Your task to perform on an android device: open app "McDonald's" (install if not already installed) and enter user name: "copes@yahoo.com" and password: "Rhenish" Image 0: 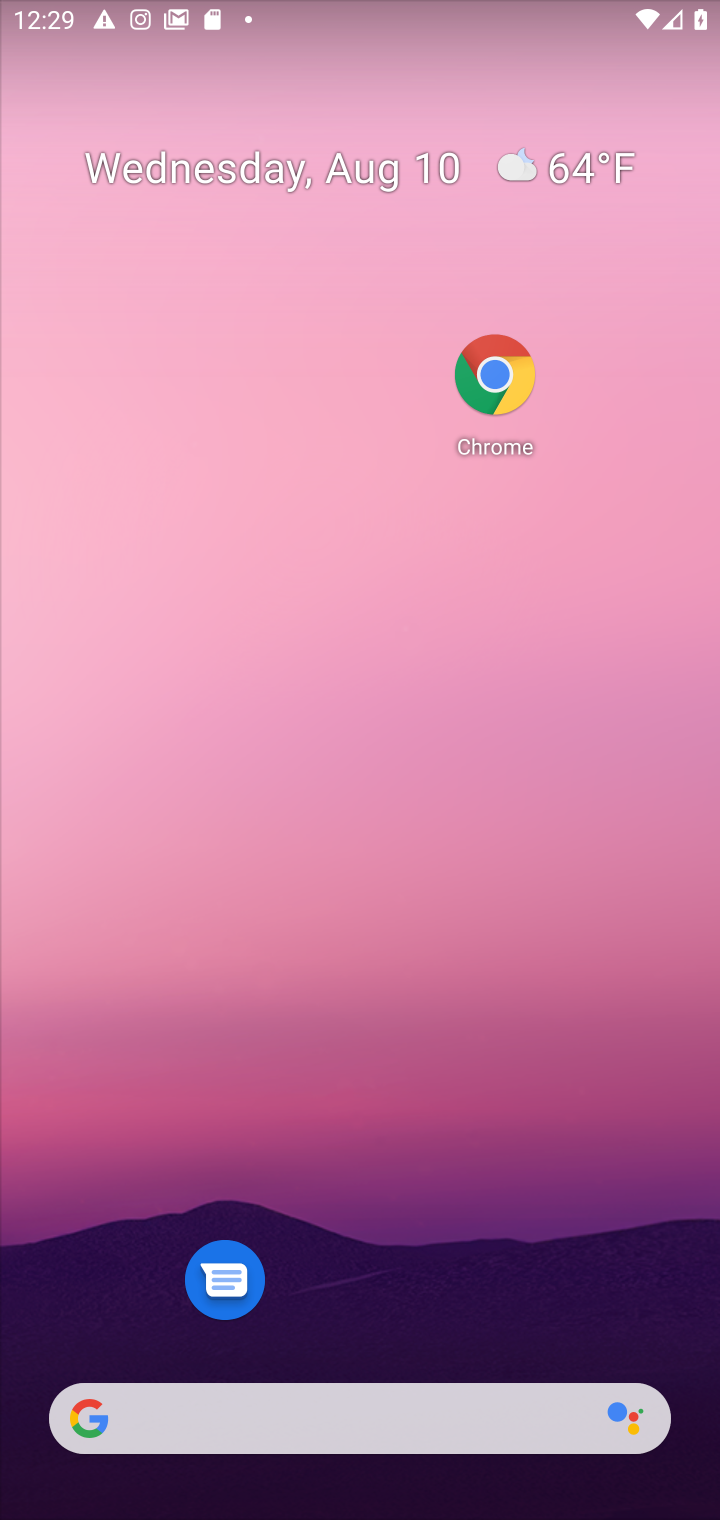
Step 0: drag from (382, 1309) to (216, 180)
Your task to perform on an android device: open app "McDonald's" (install if not already installed) and enter user name: "copes@yahoo.com" and password: "Rhenish" Image 1: 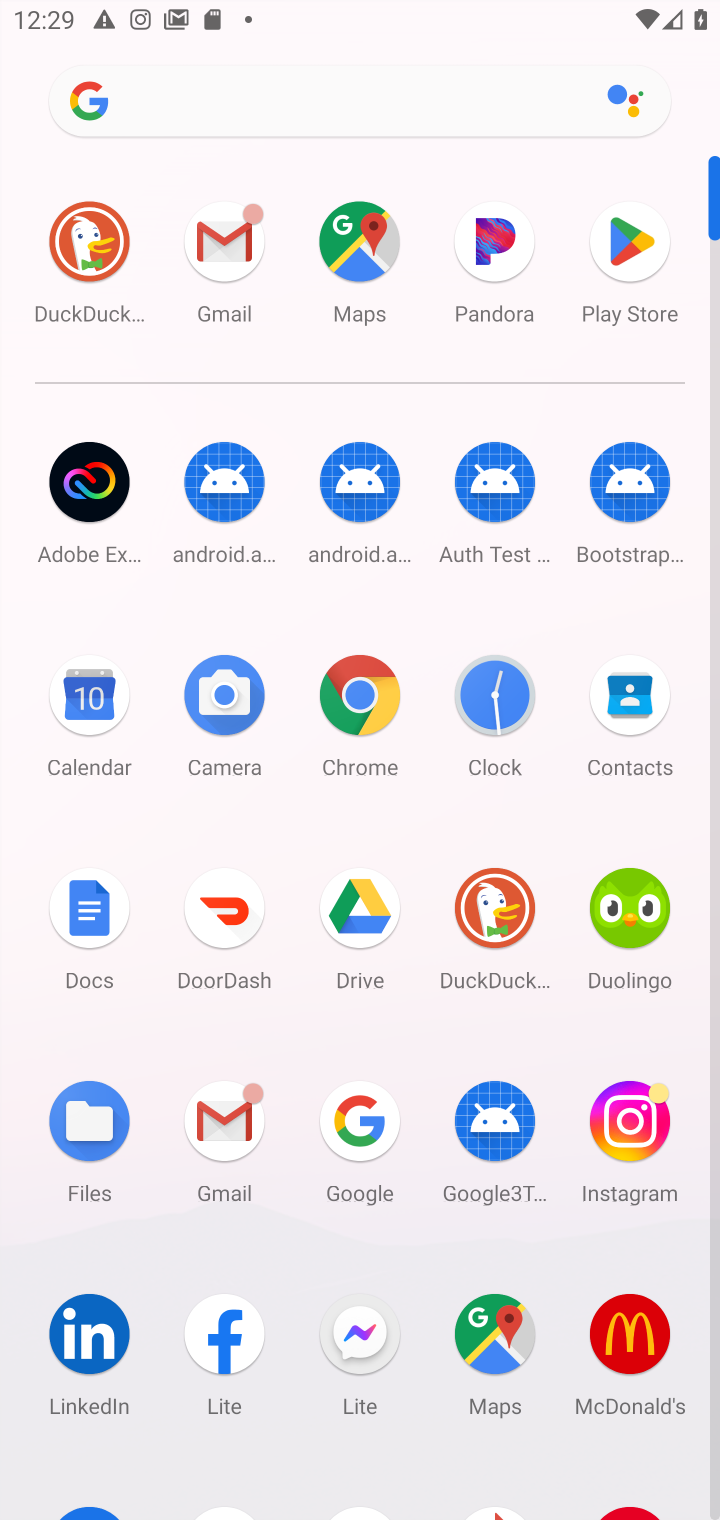
Step 1: click (603, 1327)
Your task to perform on an android device: open app "McDonald's" (install if not already installed) and enter user name: "copes@yahoo.com" and password: "Rhenish" Image 2: 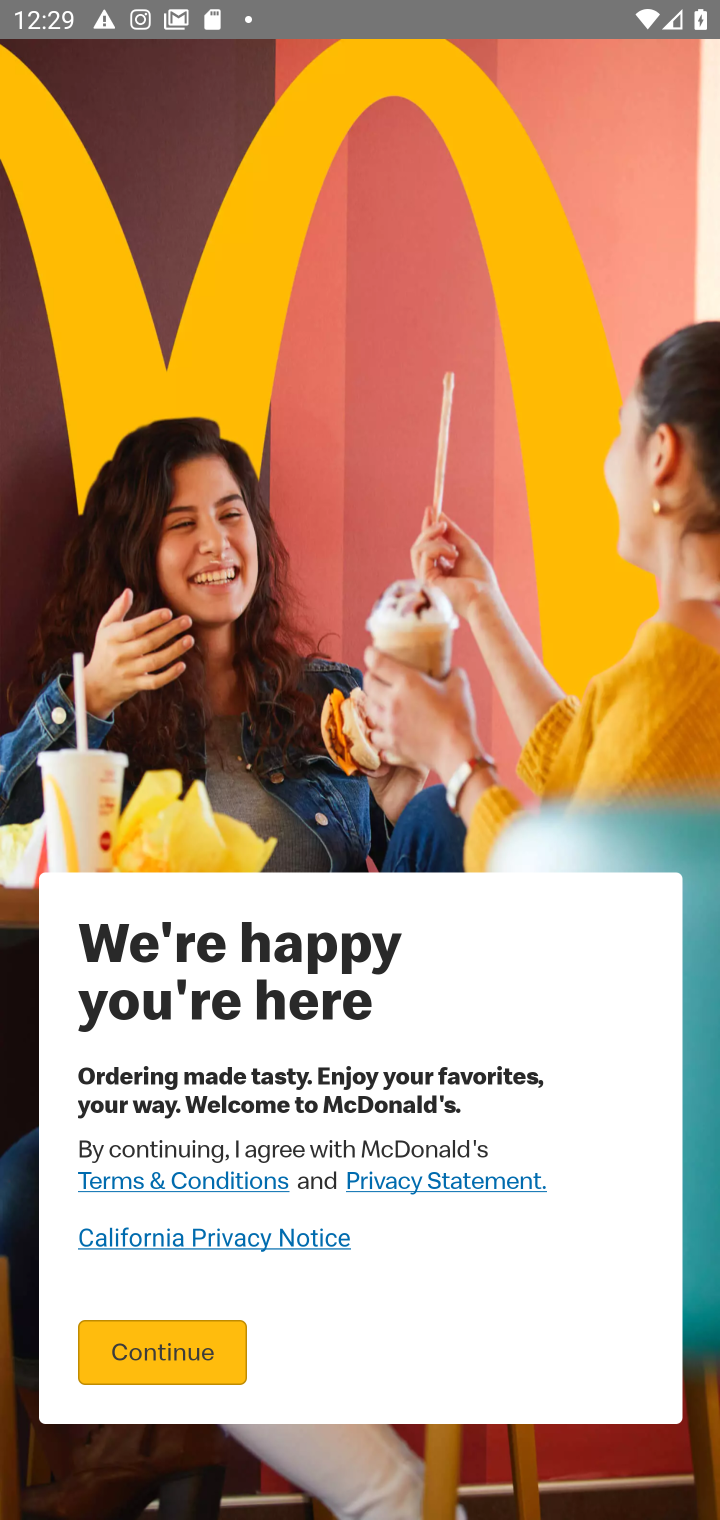
Step 2: click (201, 1364)
Your task to perform on an android device: open app "McDonald's" (install if not already installed) and enter user name: "copes@yahoo.com" and password: "Rhenish" Image 3: 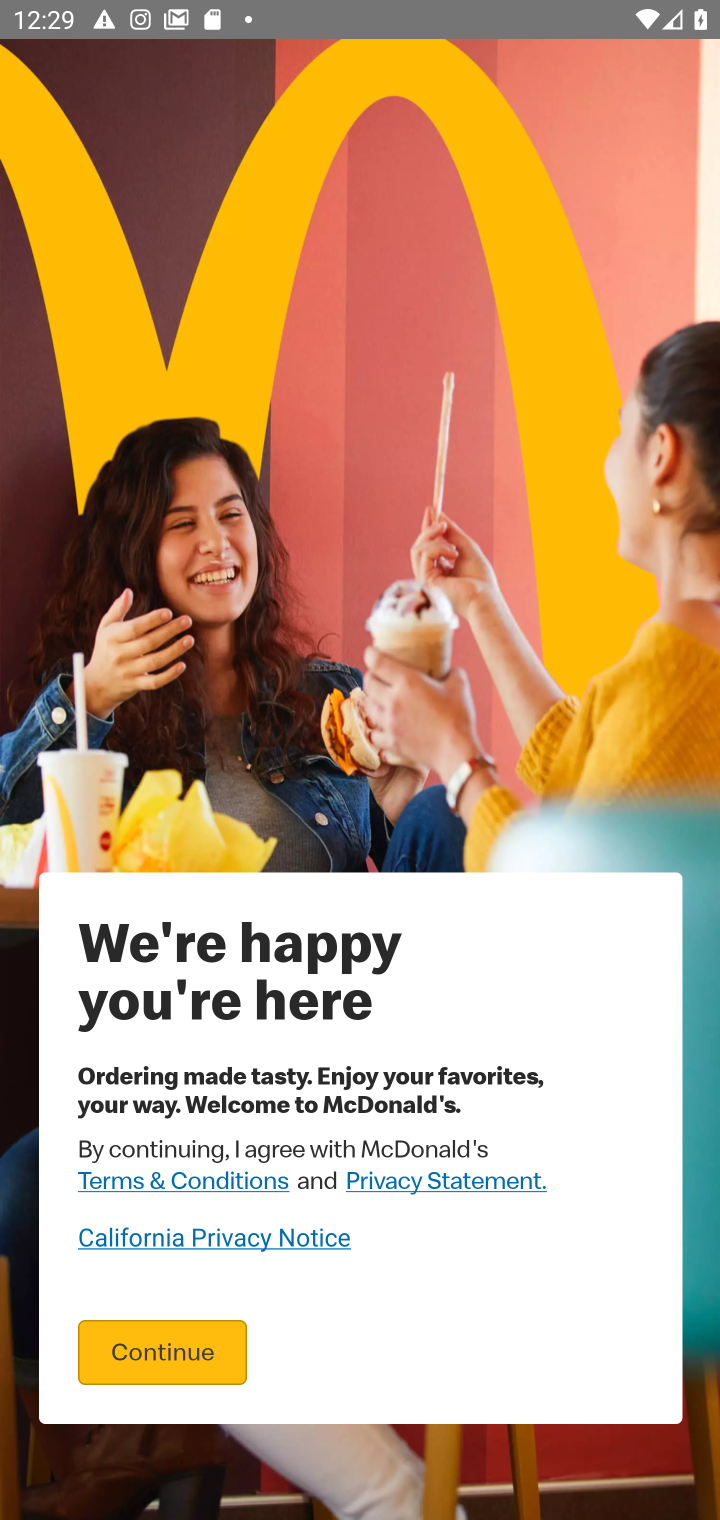
Step 3: click (201, 1364)
Your task to perform on an android device: open app "McDonald's" (install if not already installed) and enter user name: "copes@yahoo.com" and password: "Rhenish" Image 4: 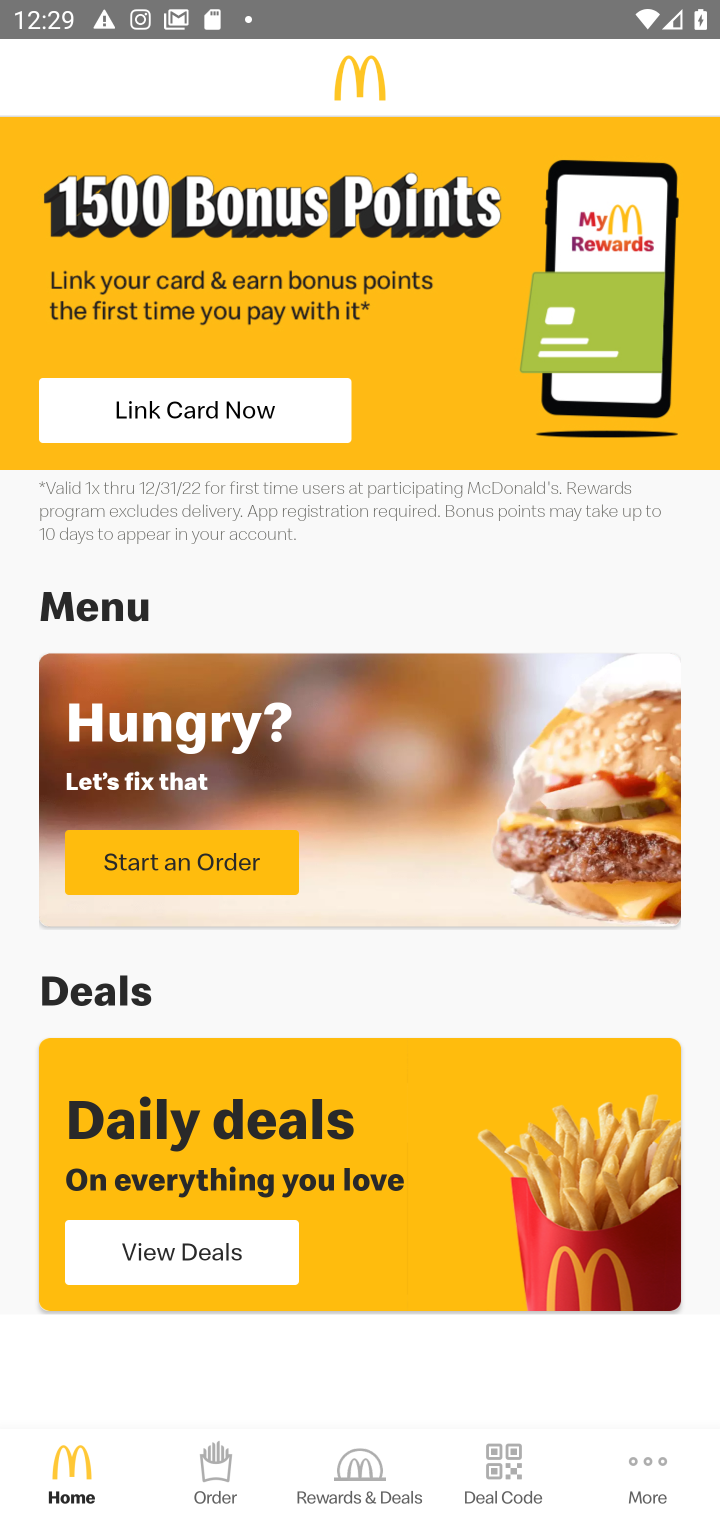
Step 4: click (201, 1366)
Your task to perform on an android device: open app "McDonald's" (install if not already installed) and enter user name: "copes@yahoo.com" and password: "Rhenish" Image 5: 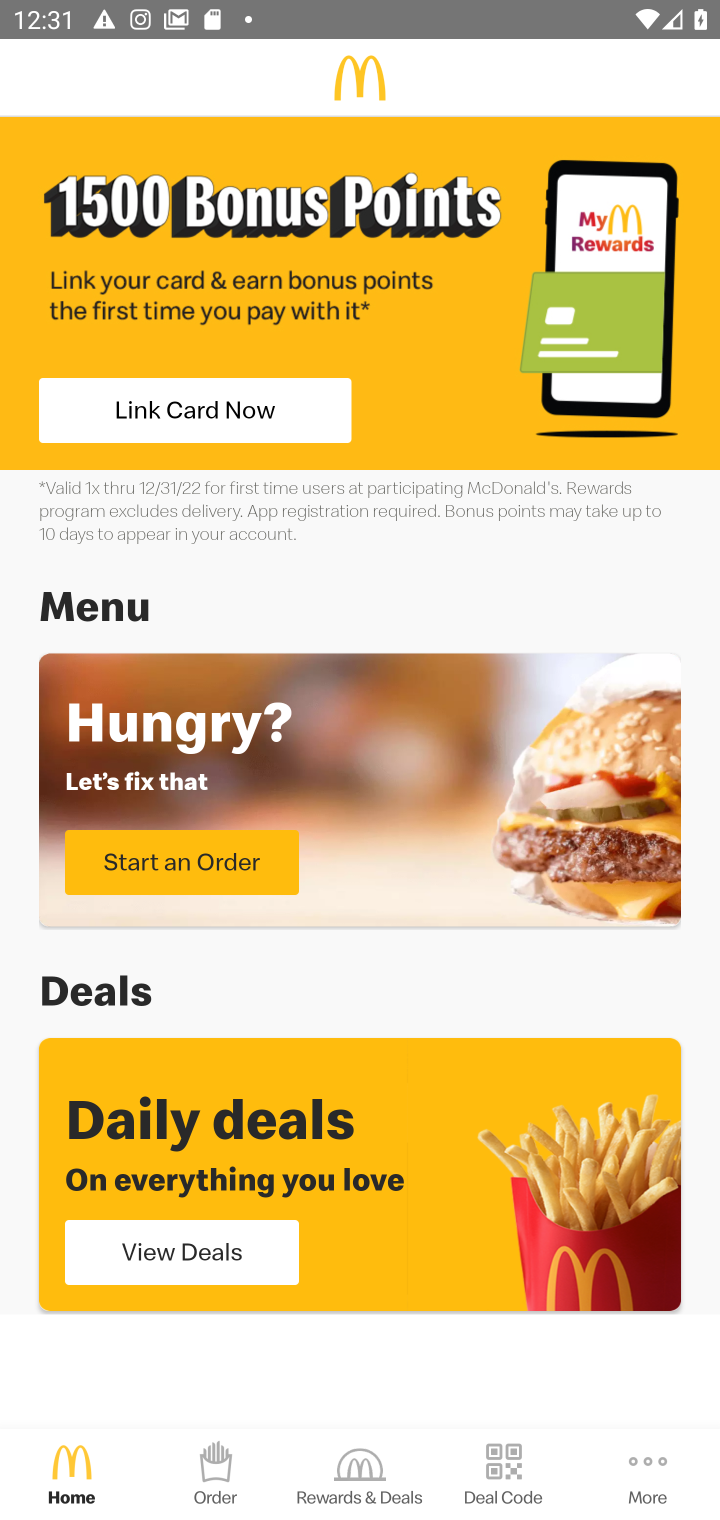
Step 5: task complete